Your task to perform on an android device: Open location settings Image 0: 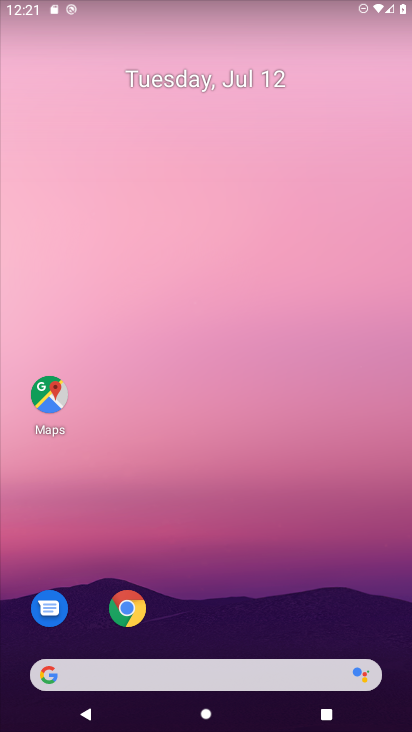
Step 0: drag from (206, 643) to (156, 53)
Your task to perform on an android device: Open location settings Image 1: 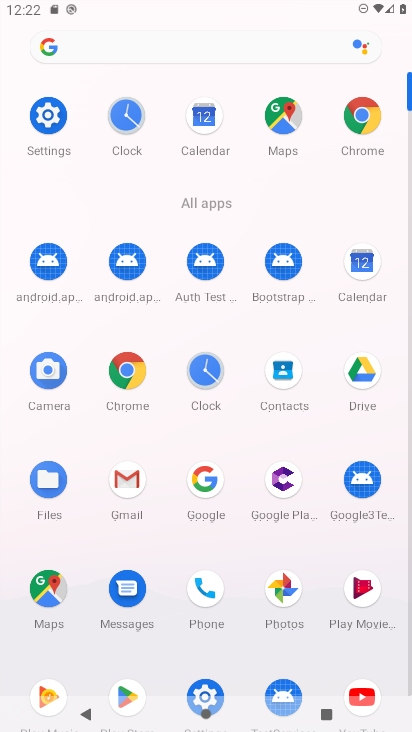
Step 1: click (47, 127)
Your task to perform on an android device: Open location settings Image 2: 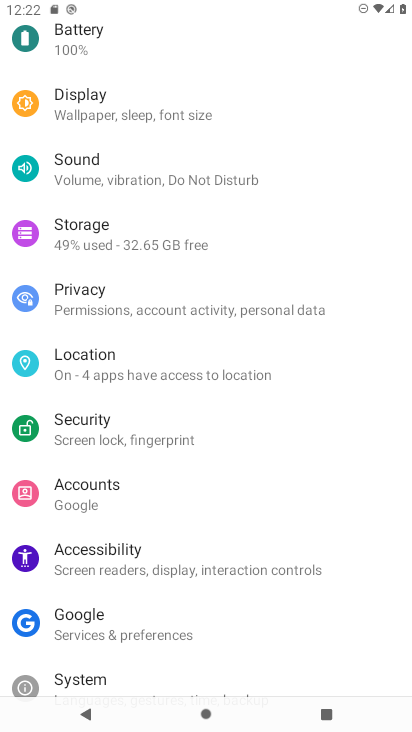
Step 2: click (57, 360)
Your task to perform on an android device: Open location settings Image 3: 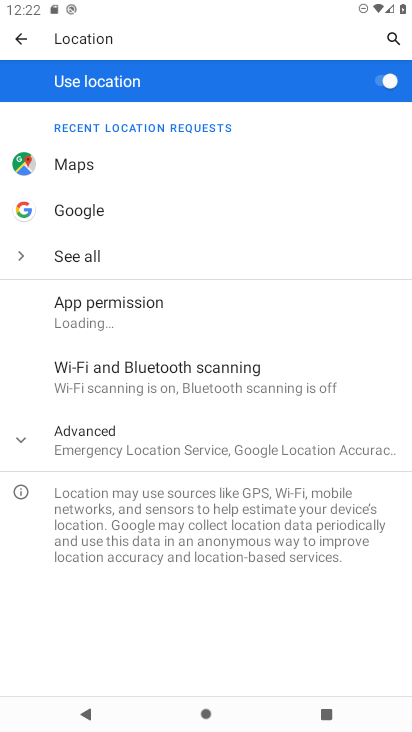
Step 3: click (119, 460)
Your task to perform on an android device: Open location settings Image 4: 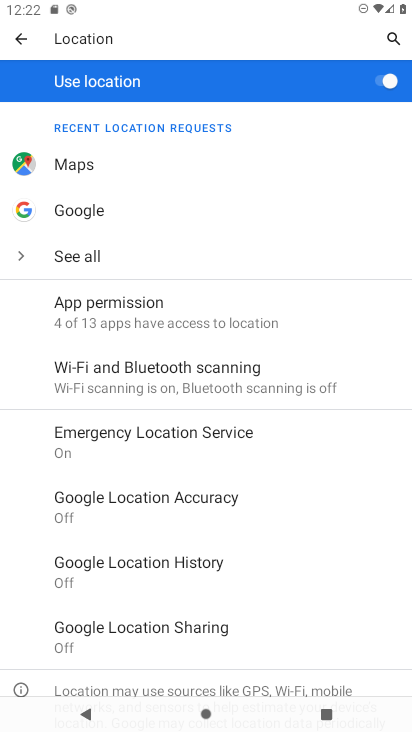
Step 4: task complete